Your task to perform on an android device: Show the shopping cart on newegg. Search for "acer nitro" on newegg, select the first entry, add it to the cart, then select checkout. Image 0: 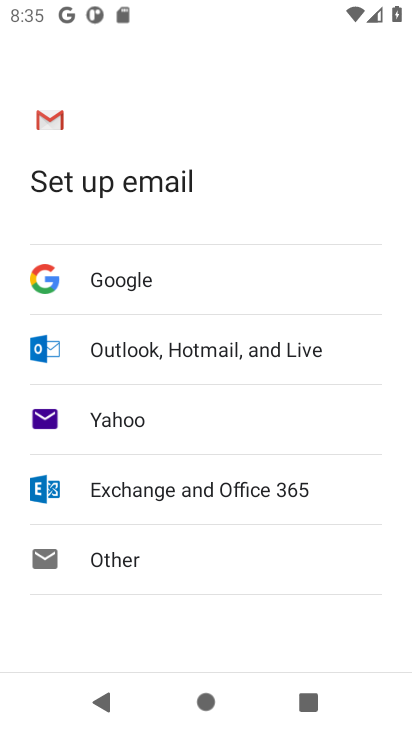
Step 0: press home button
Your task to perform on an android device: Show the shopping cart on newegg. Search for "acer nitro" on newegg, select the first entry, add it to the cart, then select checkout. Image 1: 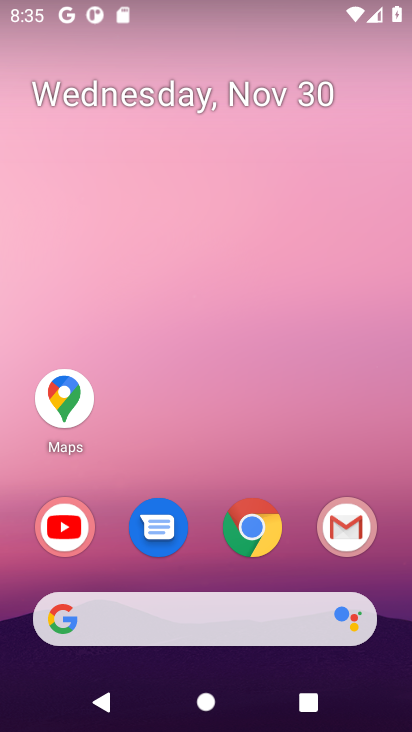
Step 1: click (257, 528)
Your task to perform on an android device: Show the shopping cart on newegg. Search for "acer nitro" on newegg, select the first entry, add it to the cart, then select checkout. Image 2: 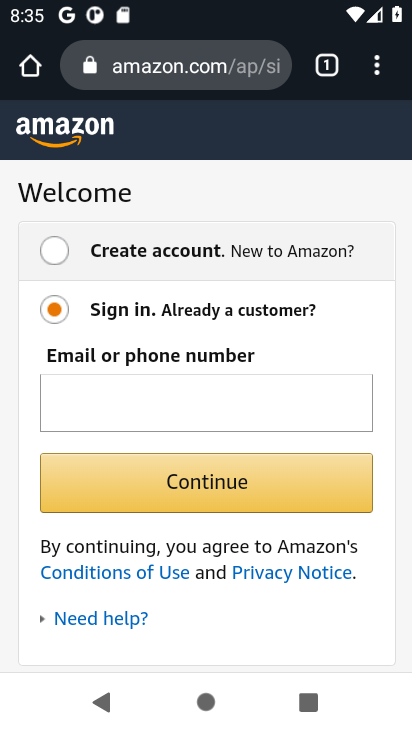
Step 2: click (230, 71)
Your task to perform on an android device: Show the shopping cart on newegg. Search for "acer nitro" on newegg, select the first entry, add it to the cart, then select checkout. Image 3: 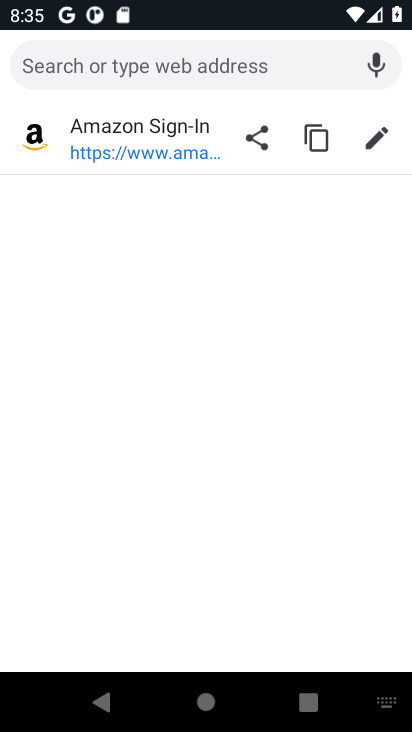
Step 3: type "newegg"
Your task to perform on an android device: Show the shopping cart on newegg. Search for "acer nitro" on newegg, select the first entry, add it to the cart, then select checkout. Image 4: 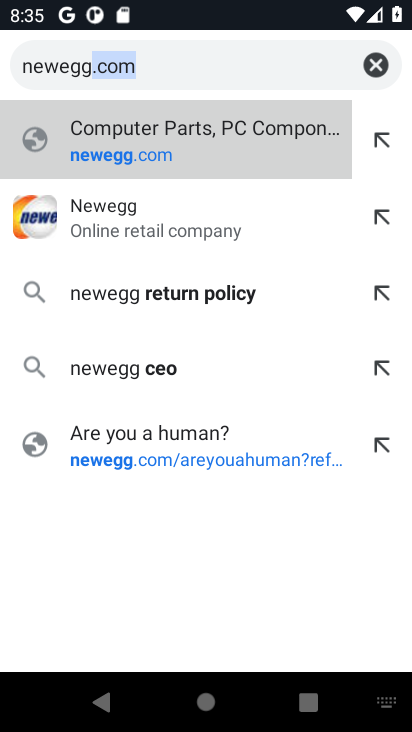
Step 4: press enter
Your task to perform on an android device: Show the shopping cart on newegg. Search for "acer nitro" on newegg, select the first entry, add it to the cart, then select checkout. Image 5: 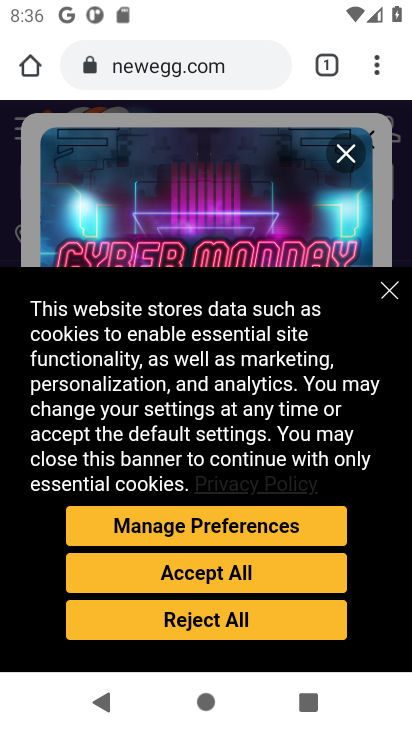
Step 5: click (393, 288)
Your task to perform on an android device: Show the shopping cart on newegg. Search for "acer nitro" on newegg, select the first entry, add it to the cart, then select checkout. Image 6: 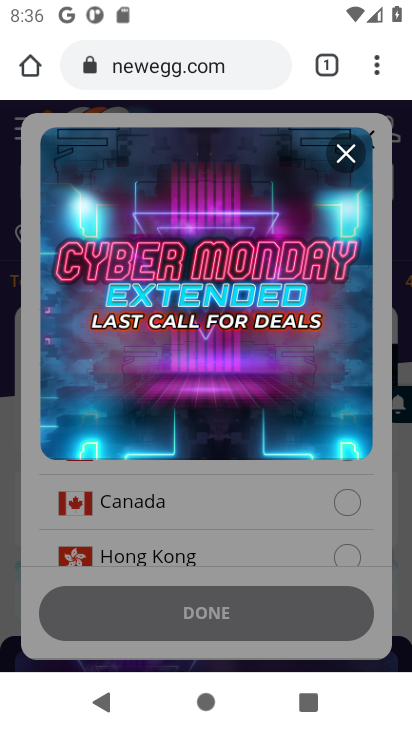
Step 6: click (350, 151)
Your task to perform on an android device: Show the shopping cart on newegg. Search for "acer nitro" on newegg, select the first entry, add it to the cart, then select checkout. Image 7: 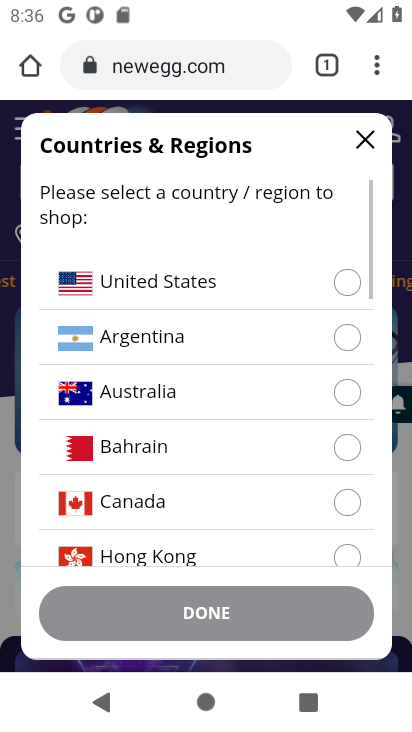
Step 7: click (347, 284)
Your task to perform on an android device: Show the shopping cart on newegg. Search for "acer nitro" on newegg, select the first entry, add it to the cart, then select checkout. Image 8: 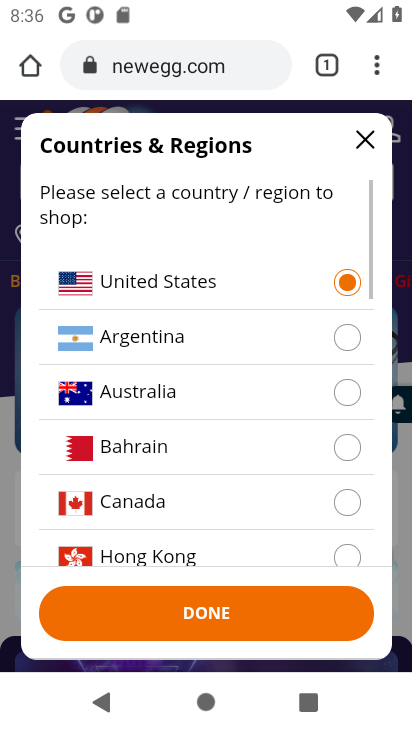
Step 8: click (182, 611)
Your task to perform on an android device: Show the shopping cart on newegg. Search for "acer nitro" on newegg, select the first entry, add it to the cart, then select checkout. Image 9: 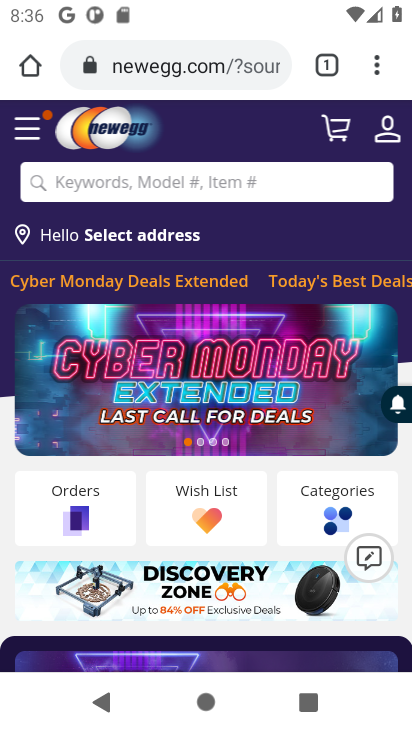
Step 9: click (341, 127)
Your task to perform on an android device: Show the shopping cart on newegg. Search for "acer nitro" on newegg, select the first entry, add it to the cart, then select checkout. Image 10: 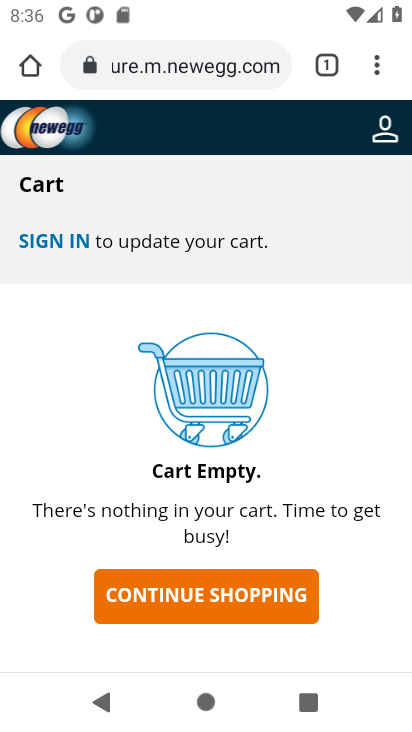
Step 10: press back button
Your task to perform on an android device: Show the shopping cart on newegg. Search for "acer nitro" on newegg, select the first entry, add it to the cart, then select checkout. Image 11: 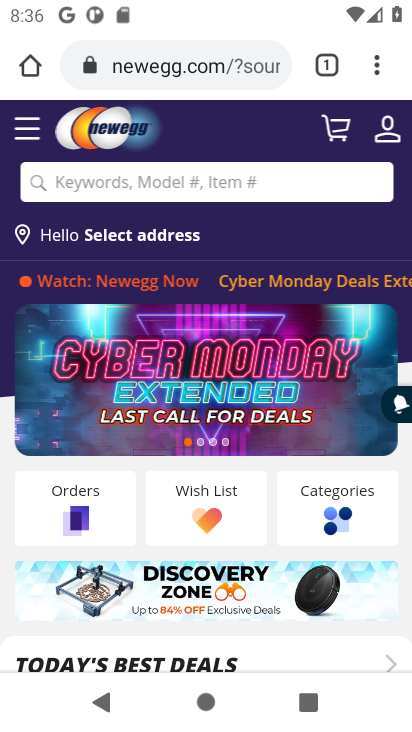
Step 11: click (298, 176)
Your task to perform on an android device: Show the shopping cart on newegg. Search for "acer nitro" on newegg, select the first entry, add it to the cart, then select checkout. Image 12: 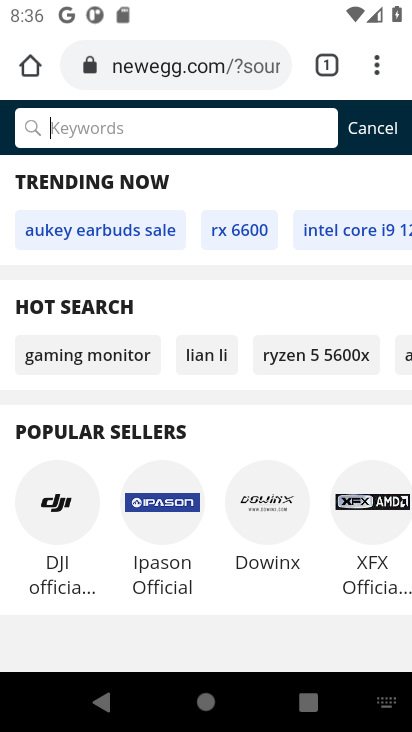
Step 12: type "acer nitro"
Your task to perform on an android device: Show the shopping cart on newegg. Search for "acer nitro" on newegg, select the first entry, add it to the cart, then select checkout. Image 13: 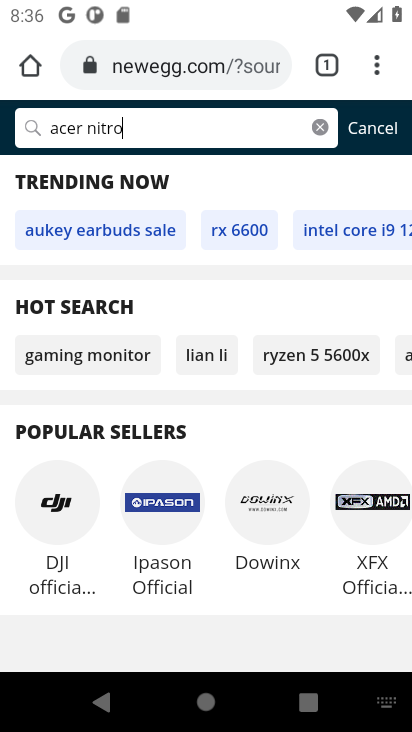
Step 13: press enter
Your task to perform on an android device: Show the shopping cart on newegg. Search for "acer nitro" on newegg, select the first entry, add it to the cart, then select checkout. Image 14: 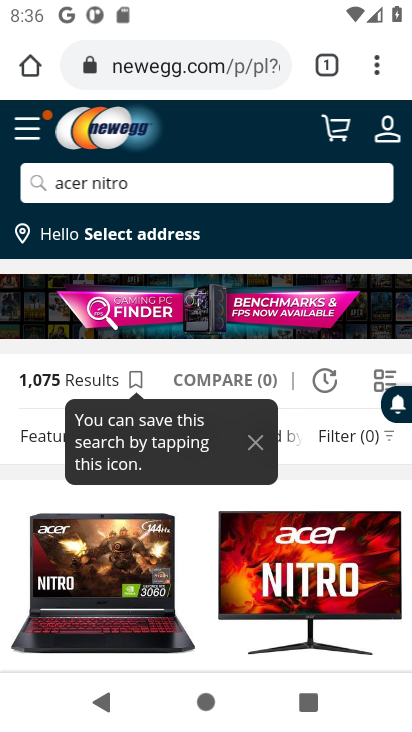
Step 14: drag from (172, 540) to (282, 210)
Your task to perform on an android device: Show the shopping cart on newegg. Search for "acer nitro" on newegg, select the first entry, add it to the cart, then select checkout. Image 15: 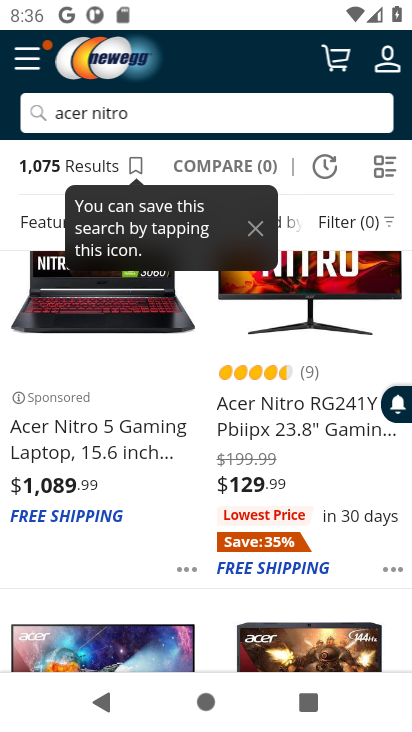
Step 15: click (327, 294)
Your task to perform on an android device: Show the shopping cart on newegg. Search for "acer nitro" on newegg, select the first entry, add it to the cart, then select checkout. Image 16: 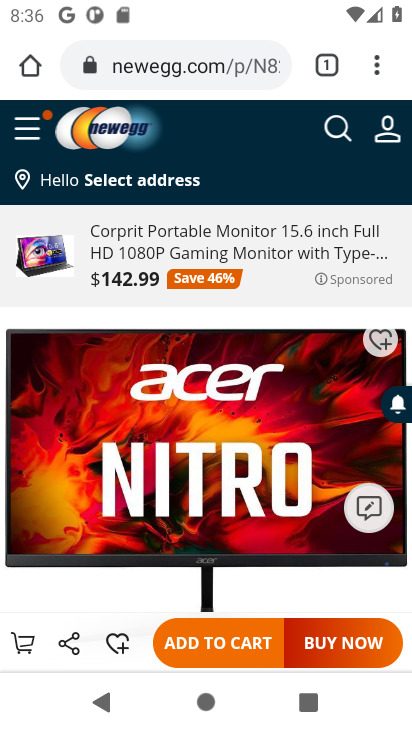
Step 16: click (216, 635)
Your task to perform on an android device: Show the shopping cart on newegg. Search for "acer nitro" on newegg, select the first entry, add it to the cart, then select checkout. Image 17: 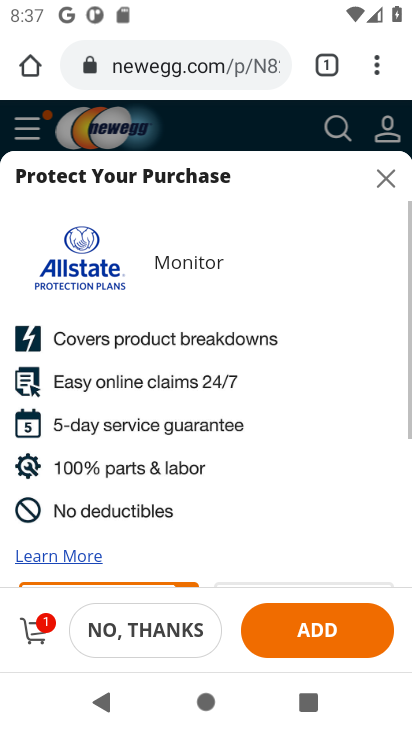
Step 17: click (31, 633)
Your task to perform on an android device: Show the shopping cart on newegg. Search for "acer nitro" on newegg, select the first entry, add it to the cart, then select checkout. Image 18: 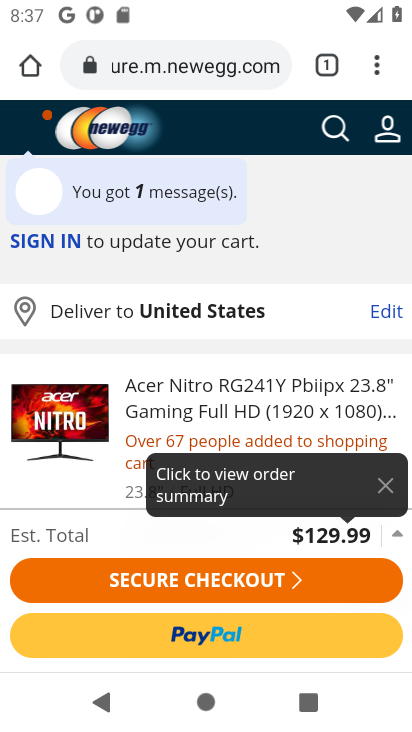
Step 18: click (204, 573)
Your task to perform on an android device: Show the shopping cart on newegg. Search for "acer nitro" on newegg, select the first entry, add it to the cart, then select checkout. Image 19: 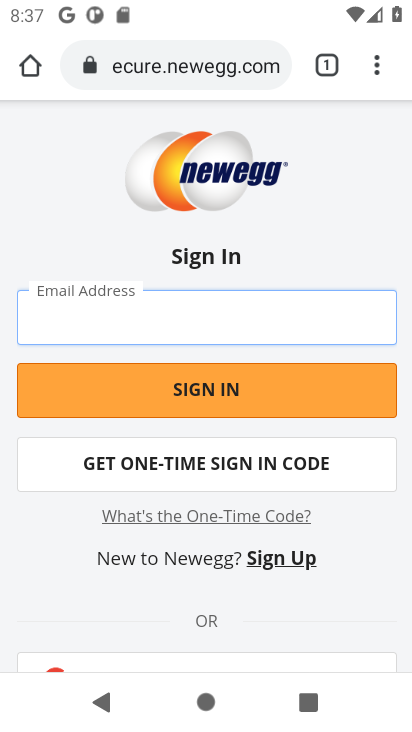
Step 19: task complete